Your task to perform on an android device: turn off location history Image 0: 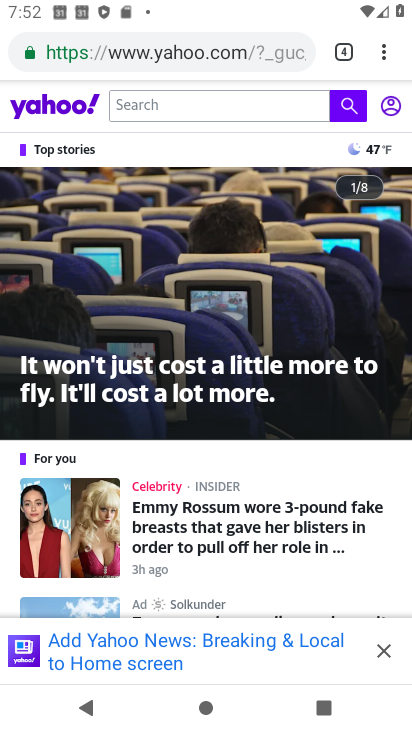
Step 0: press home button
Your task to perform on an android device: turn off location history Image 1: 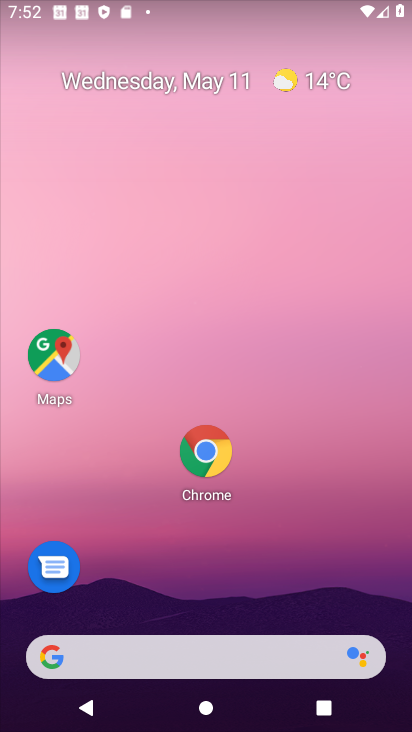
Step 1: drag from (222, 656) to (316, 110)
Your task to perform on an android device: turn off location history Image 2: 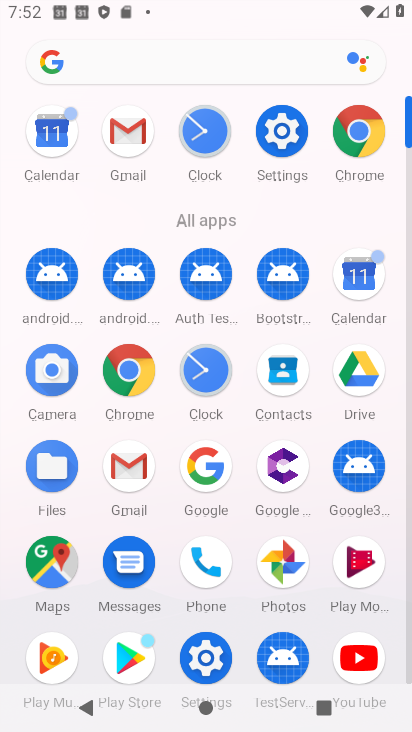
Step 2: click (45, 583)
Your task to perform on an android device: turn off location history Image 3: 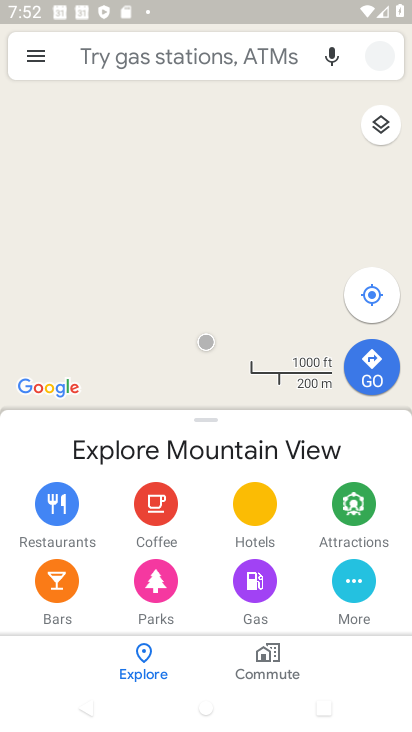
Step 3: click (42, 56)
Your task to perform on an android device: turn off location history Image 4: 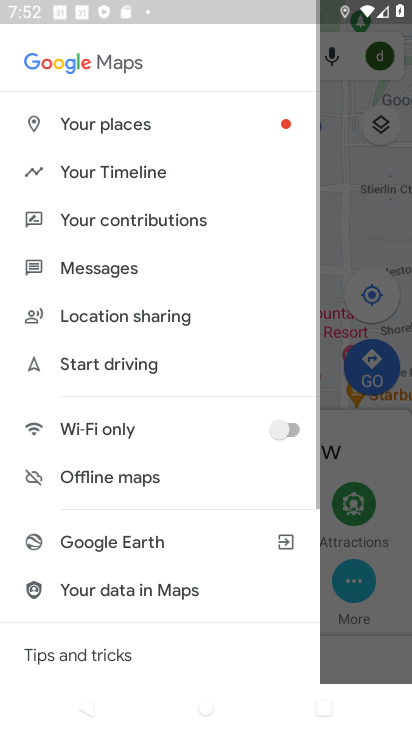
Step 4: click (120, 176)
Your task to perform on an android device: turn off location history Image 5: 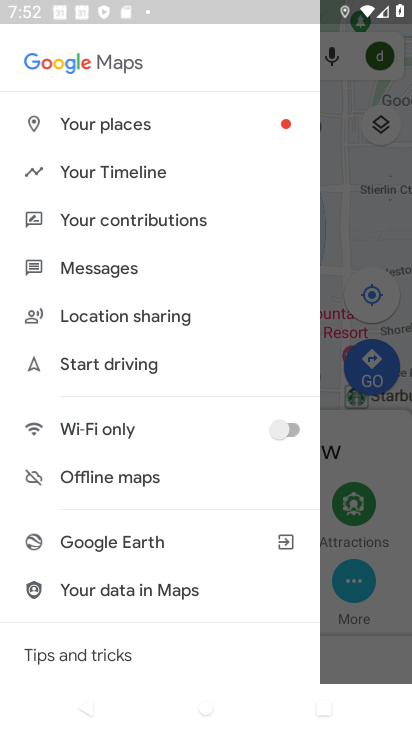
Step 5: click (125, 172)
Your task to perform on an android device: turn off location history Image 6: 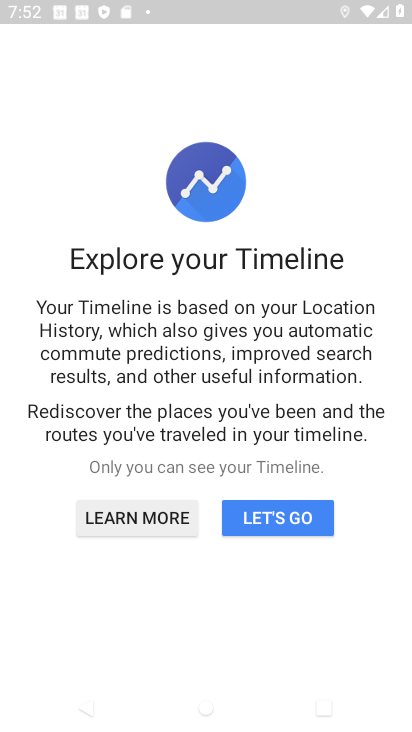
Step 6: click (277, 512)
Your task to perform on an android device: turn off location history Image 7: 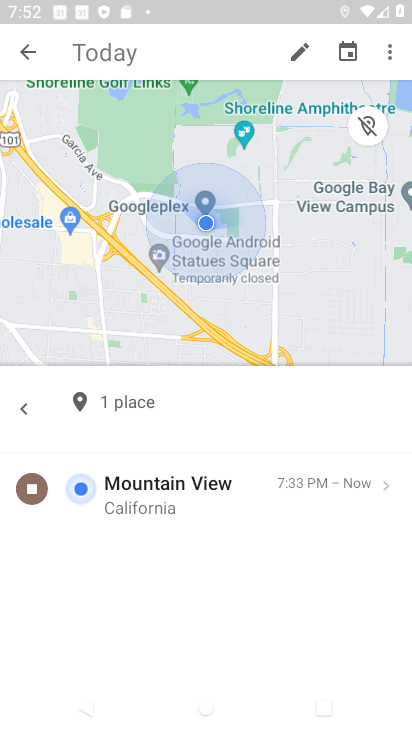
Step 7: click (390, 56)
Your task to perform on an android device: turn off location history Image 8: 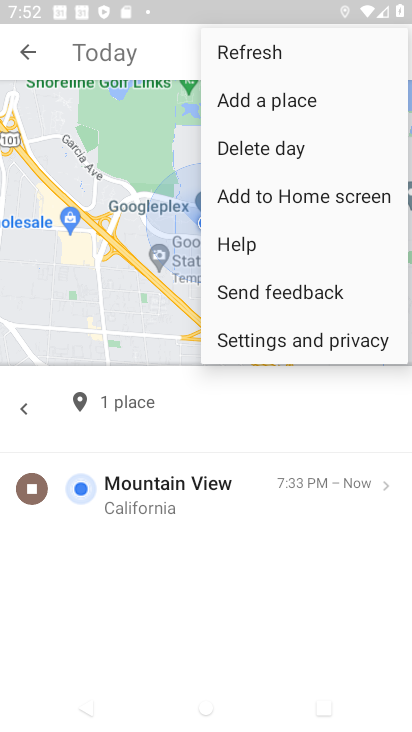
Step 8: click (274, 335)
Your task to perform on an android device: turn off location history Image 9: 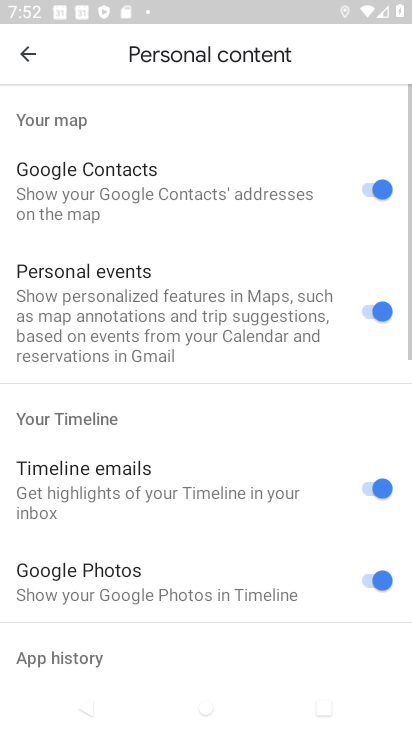
Step 9: drag from (144, 612) to (377, 78)
Your task to perform on an android device: turn off location history Image 10: 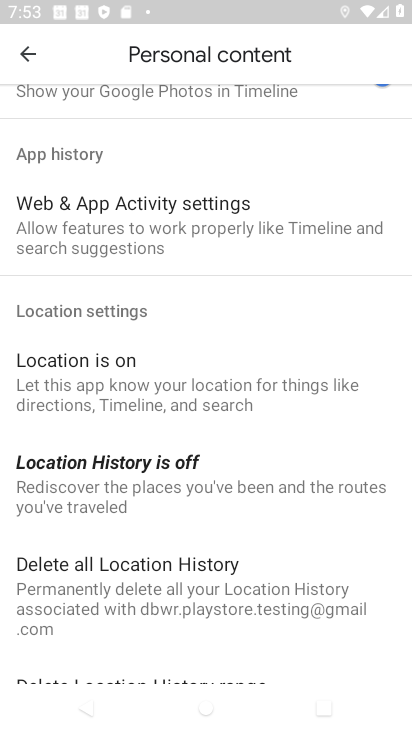
Step 10: click (140, 458)
Your task to perform on an android device: turn off location history Image 11: 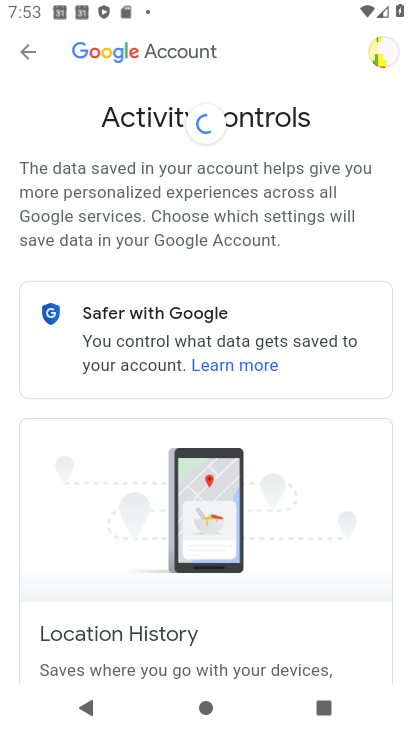
Step 11: drag from (194, 346) to (289, 154)
Your task to perform on an android device: turn off location history Image 12: 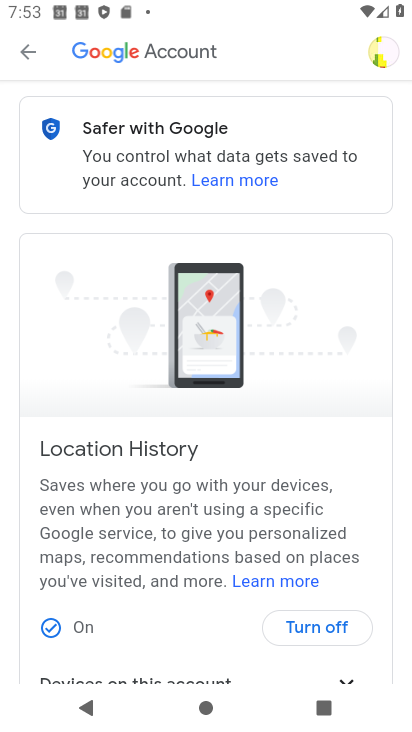
Step 12: click (314, 629)
Your task to perform on an android device: turn off location history Image 13: 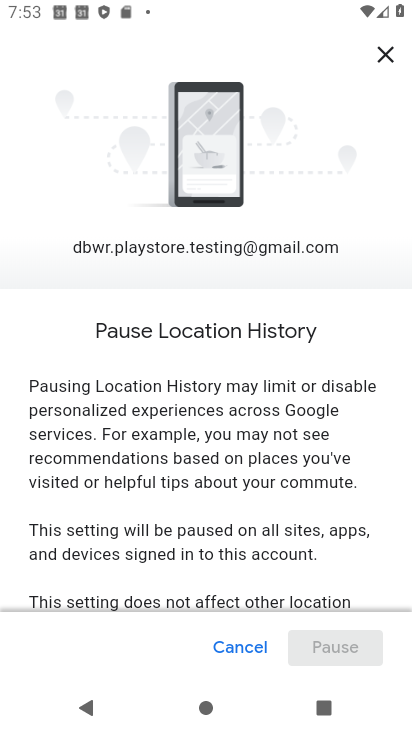
Step 13: drag from (309, 366) to (371, 67)
Your task to perform on an android device: turn off location history Image 14: 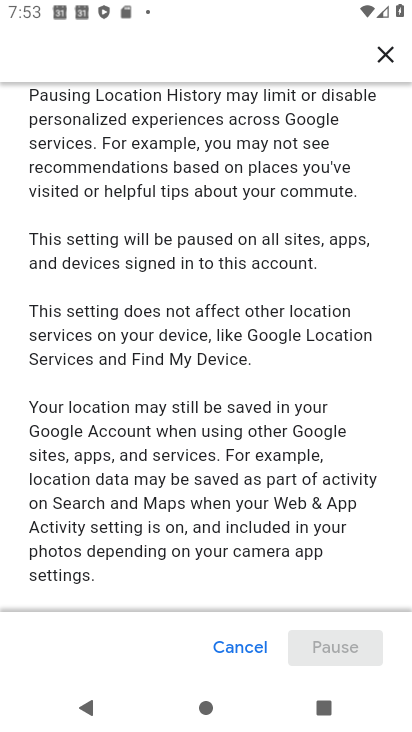
Step 14: drag from (279, 576) to (394, 92)
Your task to perform on an android device: turn off location history Image 15: 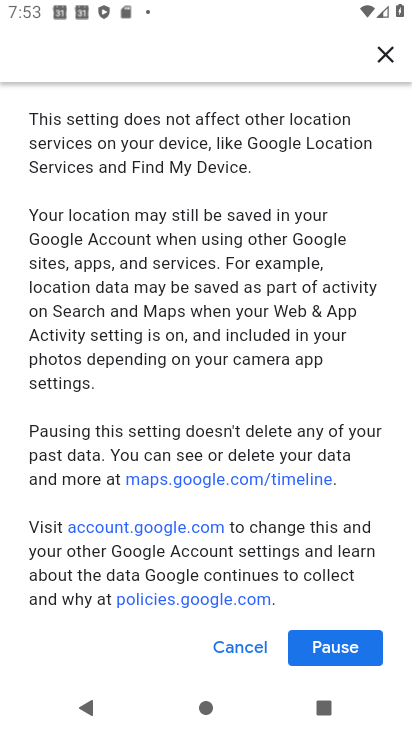
Step 15: click (331, 649)
Your task to perform on an android device: turn off location history Image 16: 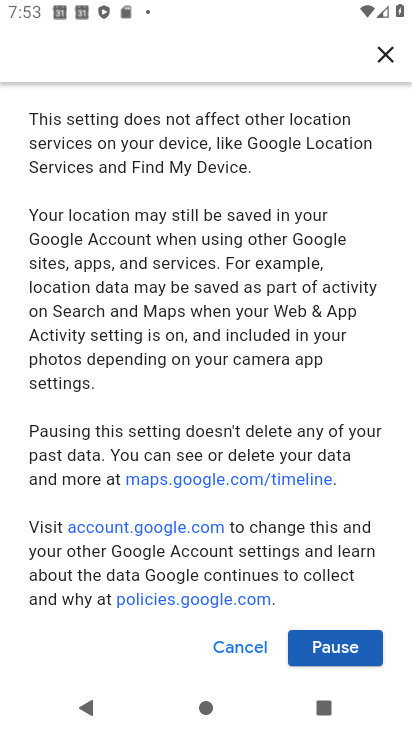
Step 16: click (331, 649)
Your task to perform on an android device: turn off location history Image 17: 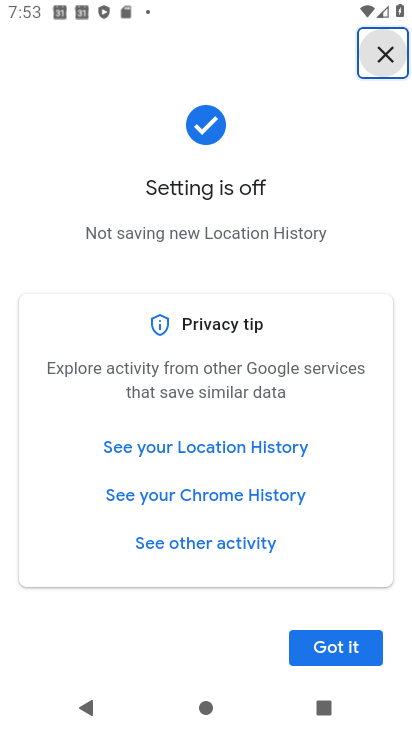
Step 17: click (334, 652)
Your task to perform on an android device: turn off location history Image 18: 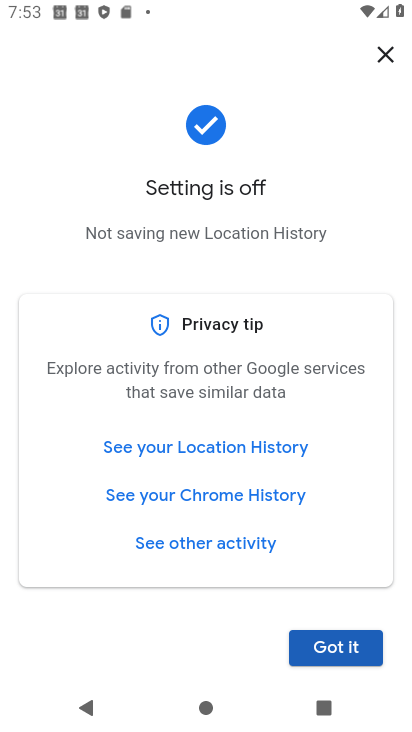
Step 18: task complete